Your task to perform on an android device: check data usage Image 0: 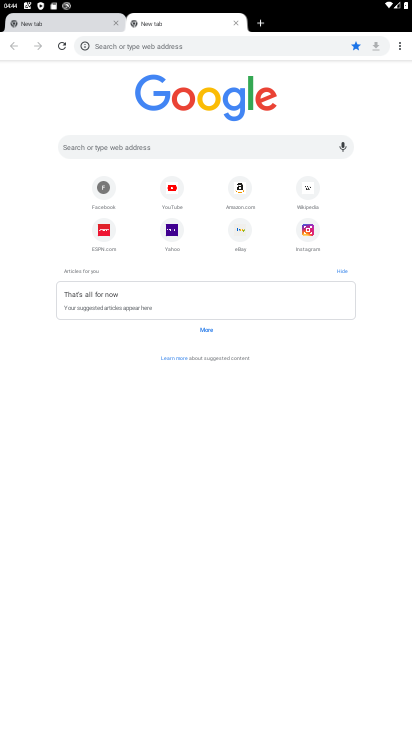
Step 0: press home button
Your task to perform on an android device: check data usage Image 1: 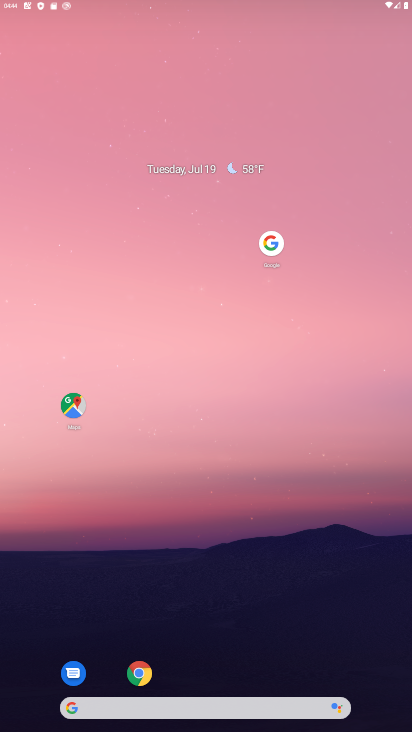
Step 1: drag from (252, 632) to (198, 156)
Your task to perform on an android device: check data usage Image 2: 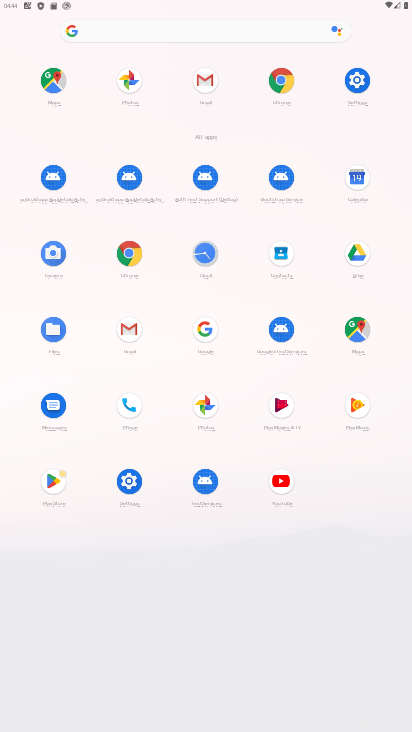
Step 2: click (353, 76)
Your task to perform on an android device: check data usage Image 3: 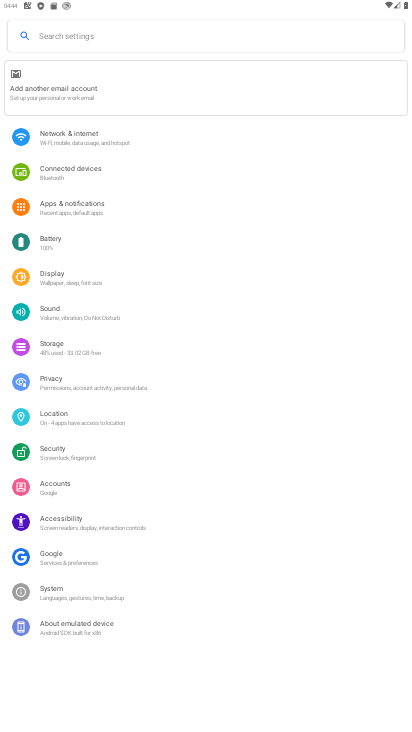
Step 3: click (77, 136)
Your task to perform on an android device: check data usage Image 4: 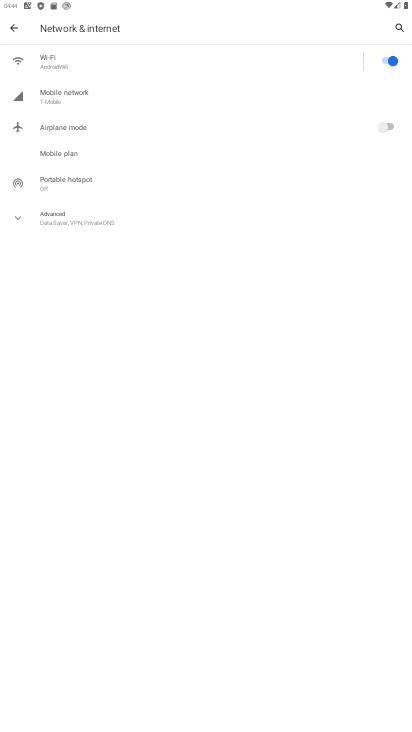
Step 4: click (69, 94)
Your task to perform on an android device: check data usage Image 5: 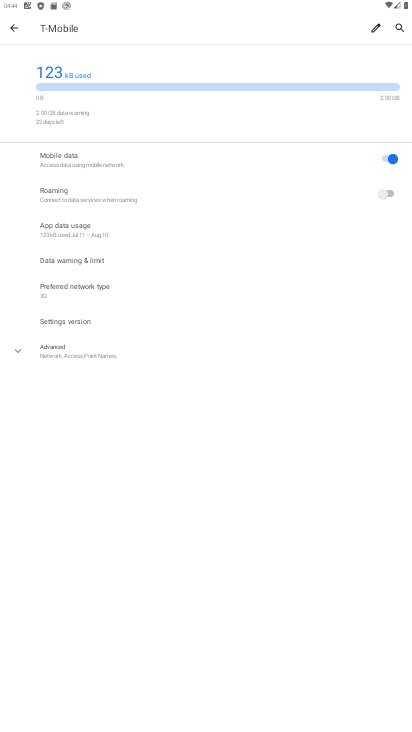
Step 5: task complete